Your task to perform on an android device: toggle notification dots Image 0: 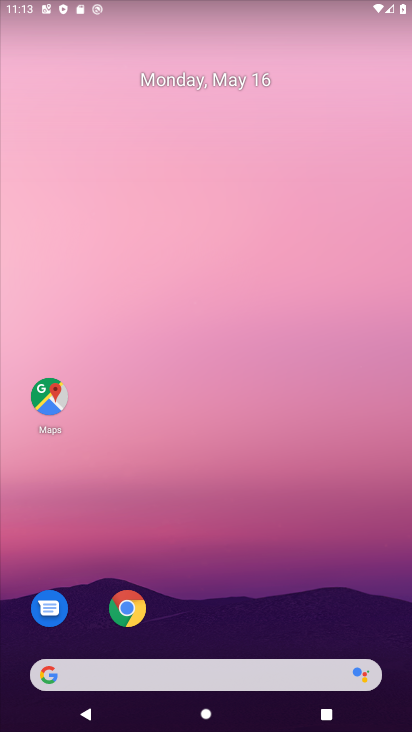
Step 0: drag from (202, 673) to (314, 96)
Your task to perform on an android device: toggle notification dots Image 1: 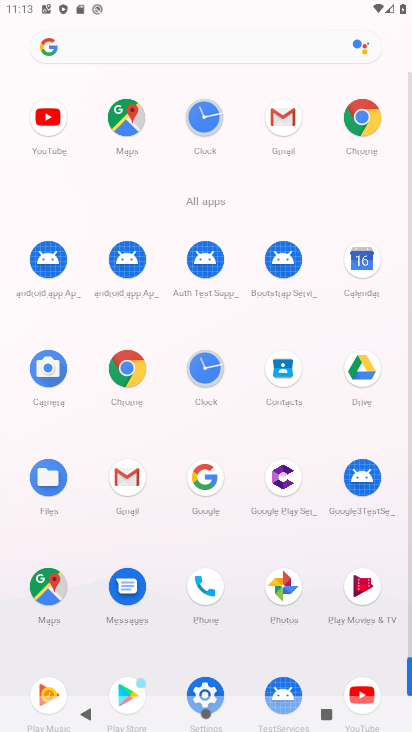
Step 1: drag from (185, 630) to (206, 174)
Your task to perform on an android device: toggle notification dots Image 2: 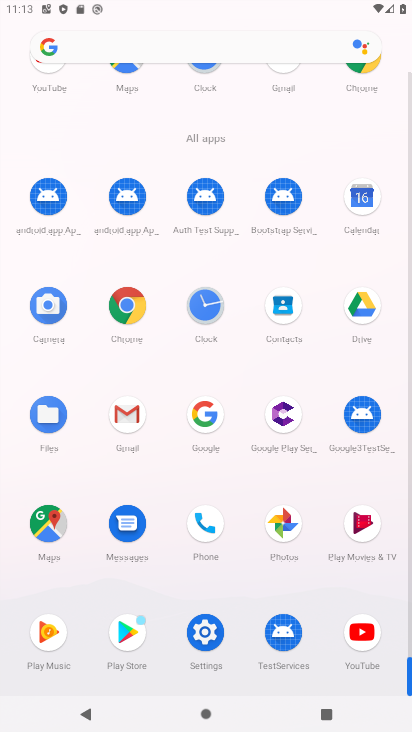
Step 2: click (208, 647)
Your task to perform on an android device: toggle notification dots Image 3: 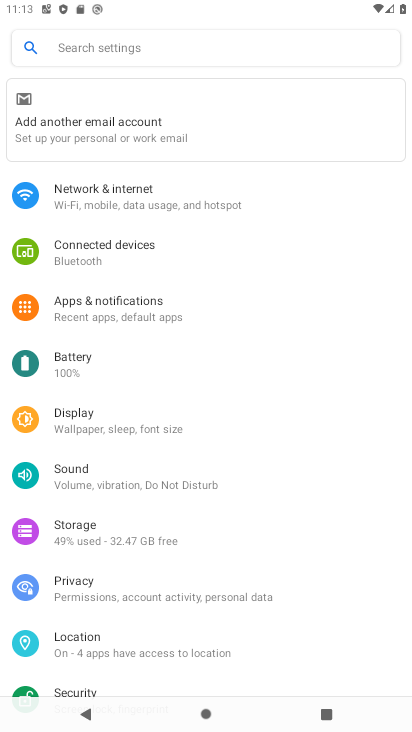
Step 3: click (133, 301)
Your task to perform on an android device: toggle notification dots Image 4: 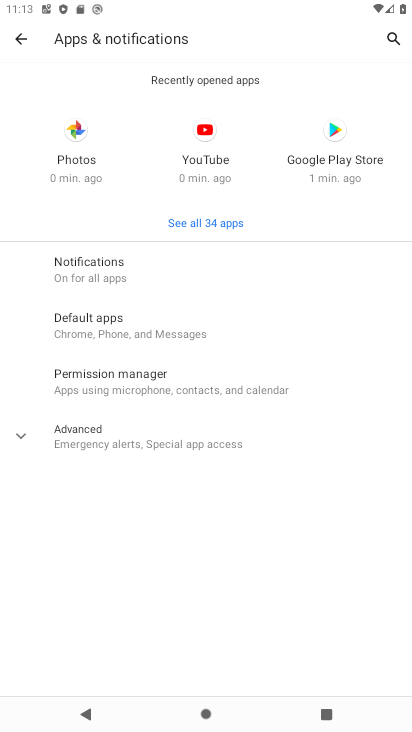
Step 4: click (102, 271)
Your task to perform on an android device: toggle notification dots Image 5: 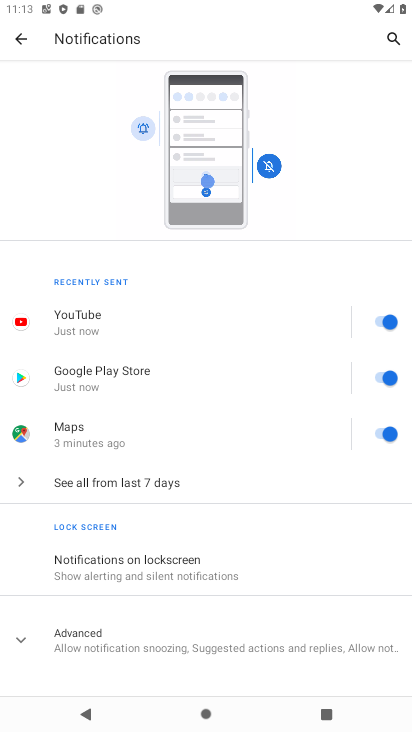
Step 5: drag from (202, 496) to (238, 181)
Your task to perform on an android device: toggle notification dots Image 6: 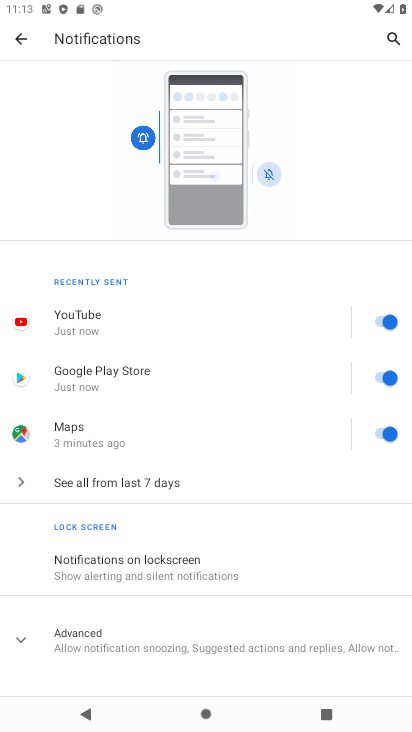
Step 6: click (143, 646)
Your task to perform on an android device: toggle notification dots Image 7: 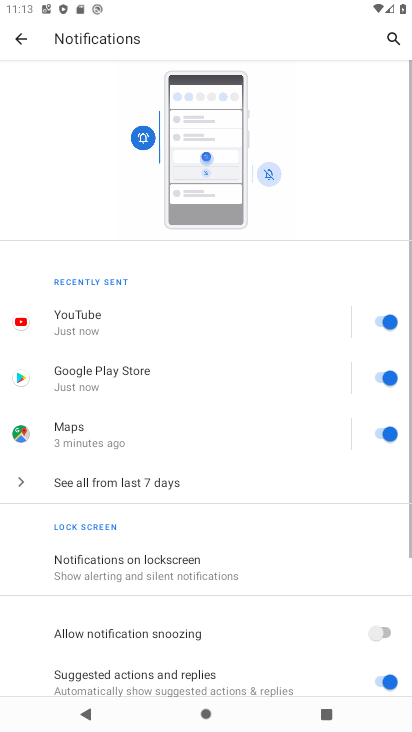
Step 7: drag from (211, 618) to (226, 177)
Your task to perform on an android device: toggle notification dots Image 8: 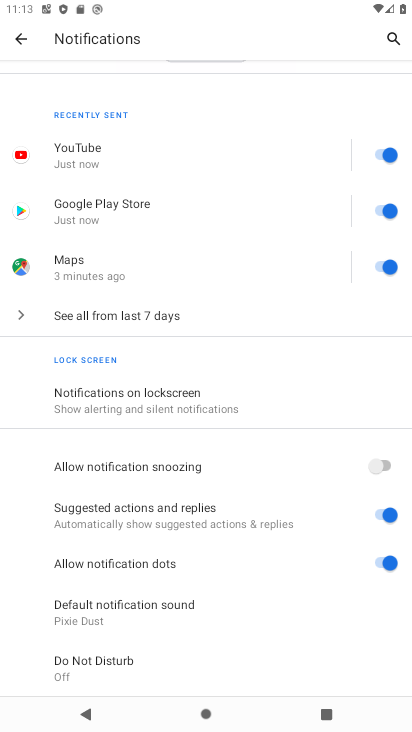
Step 8: click (378, 564)
Your task to perform on an android device: toggle notification dots Image 9: 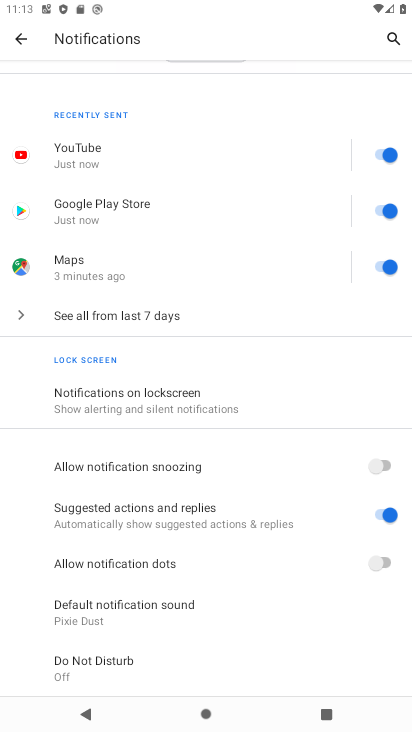
Step 9: task complete